Your task to perform on an android device: What's the weather today? Image 0: 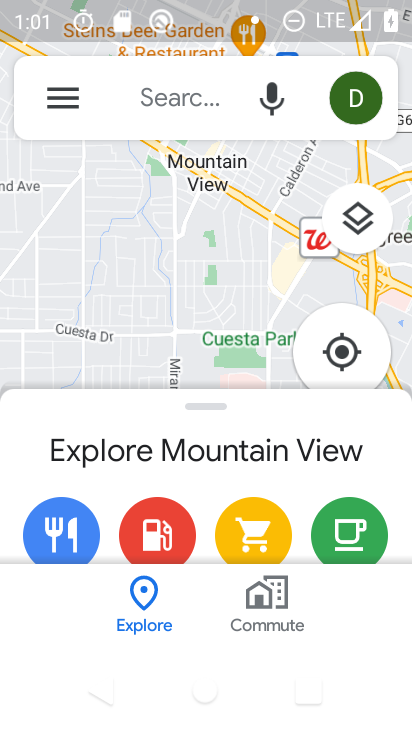
Step 0: press home button
Your task to perform on an android device: What's the weather today? Image 1: 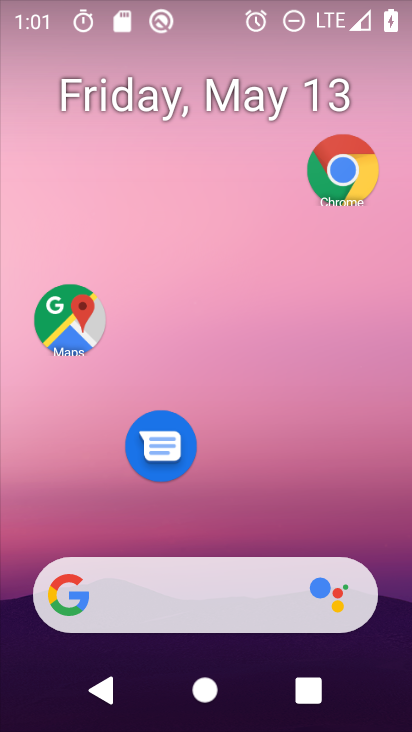
Step 1: drag from (196, 596) to (238, 58)
Your task to perform on an android device: What's the weather today? Image 2: 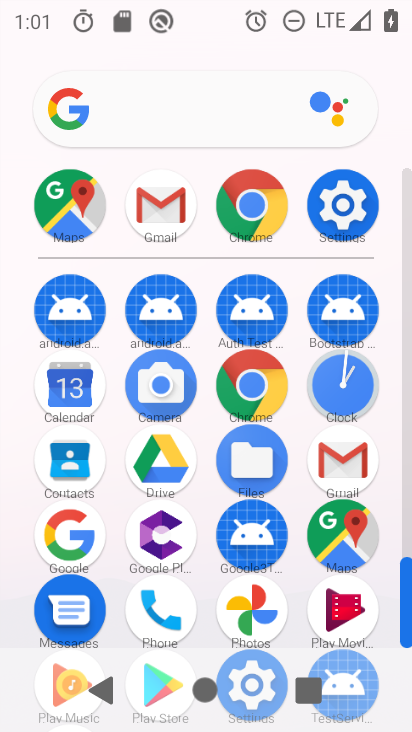
Step 2: click (263, 392)
Your task to perform on an android device: What's the weather today? Image 3: 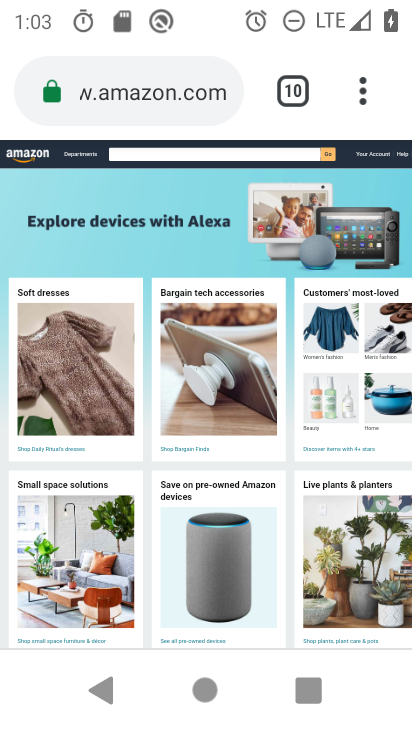
Step 3: click (223, 91)
Your task to perform on an android device: What's the weather today? Image 4: 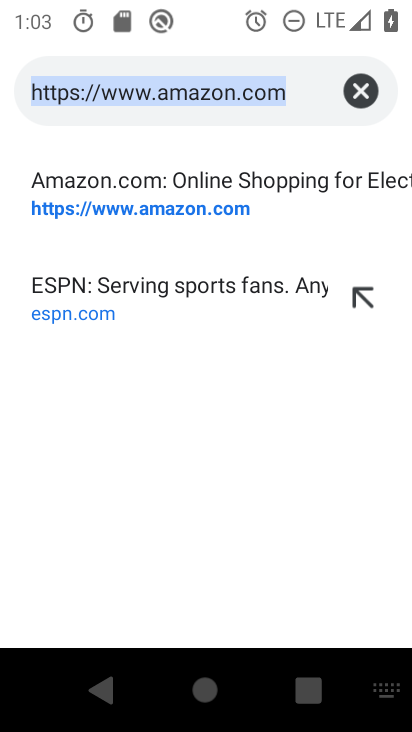
Step 4: click (354, 96)
Your task to perform on an android device: What's the weather today? Image 5: 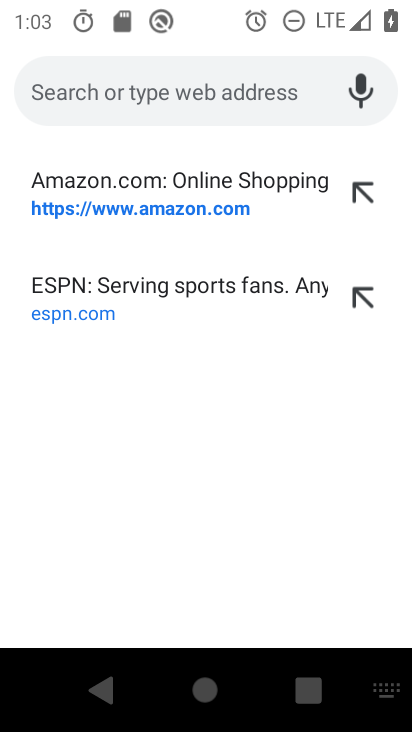
Step 5: type "weather today"
Your task to perform on an android device: What's the weather today? Image 6: 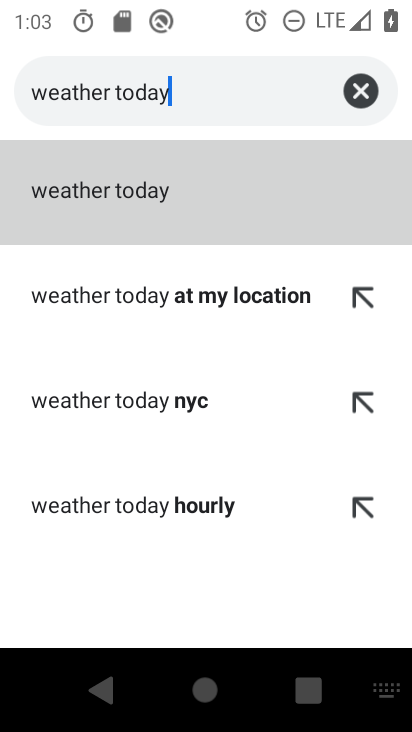
Step 6: click (240, 207)
Your task to perform on an android device: What's the weather today? Image 7: 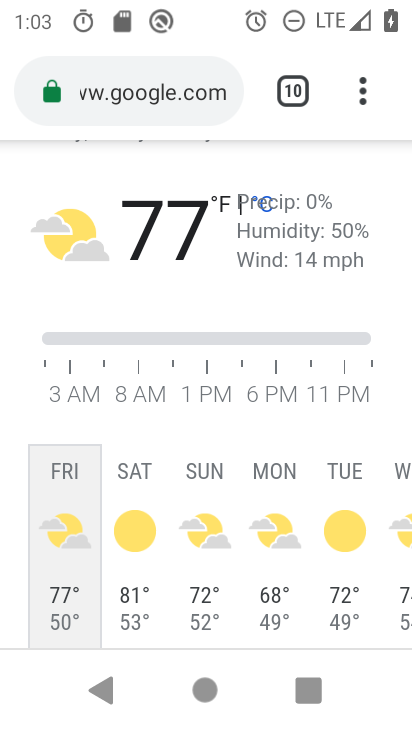
Step 7: task complete